Your task to perform on an android device: turn off location history Image 0: 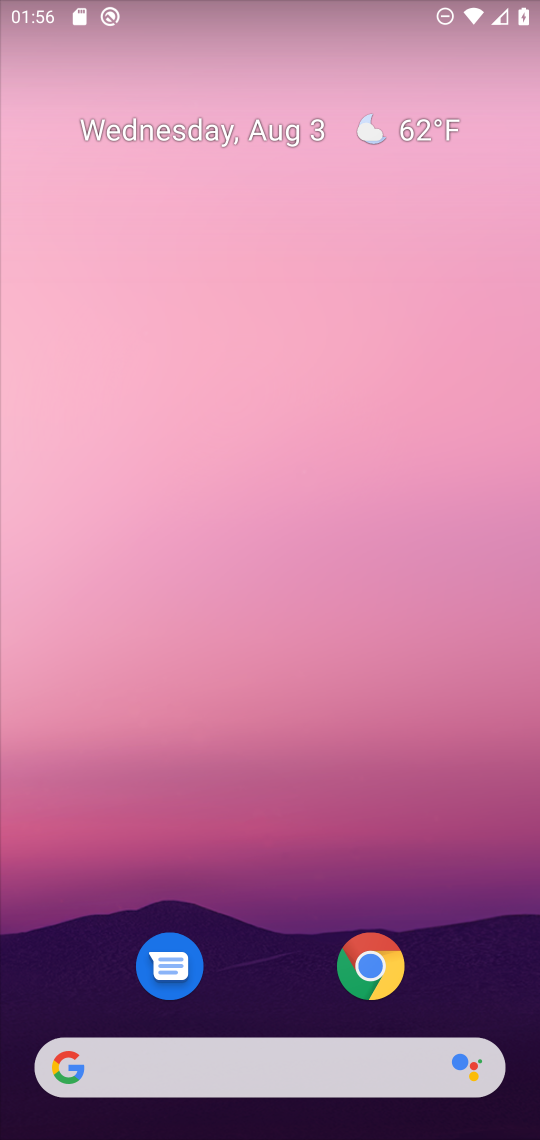
Step 0: drag from (256, 944) to (234, 431)
Your task to perform on an android device: turn off location history Image 1: 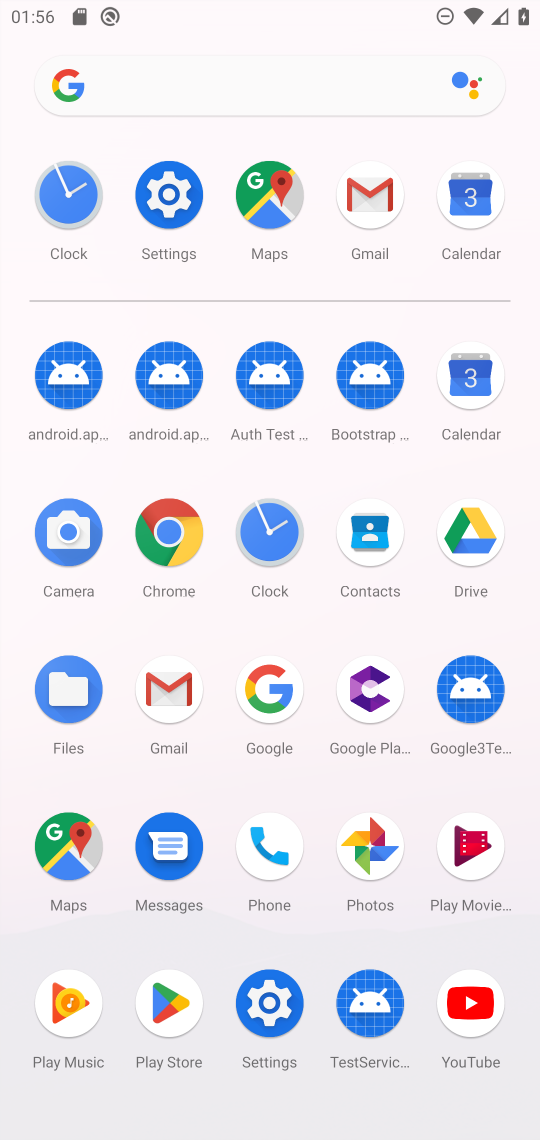
Step 1: click (175, 232)
Your task to perform on an android device: turn off location history Image 2: 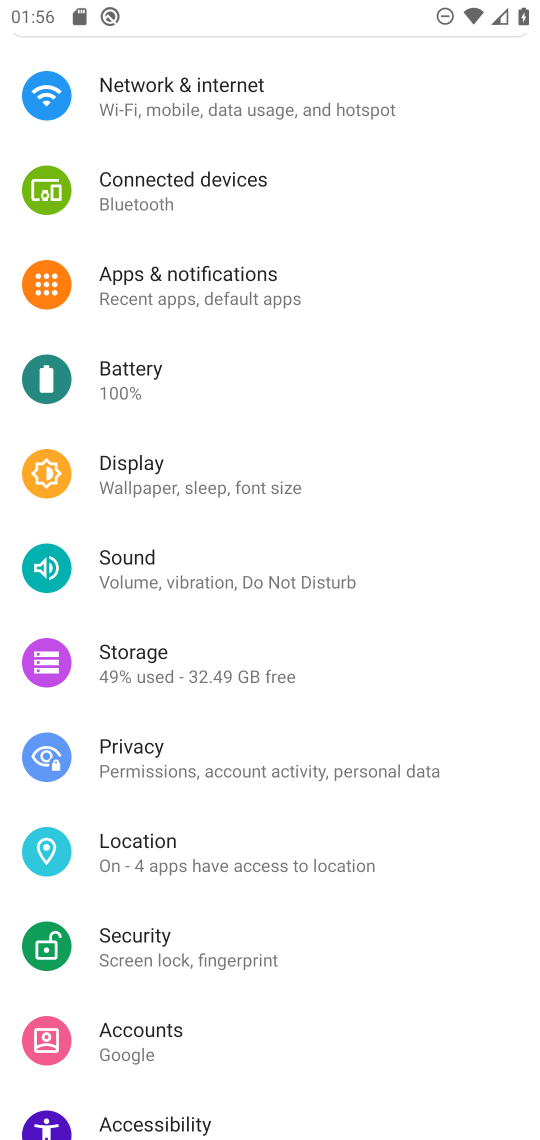
Step 2: click (164, 874)
Your task to perform on an android device: turn off location history Image 3: 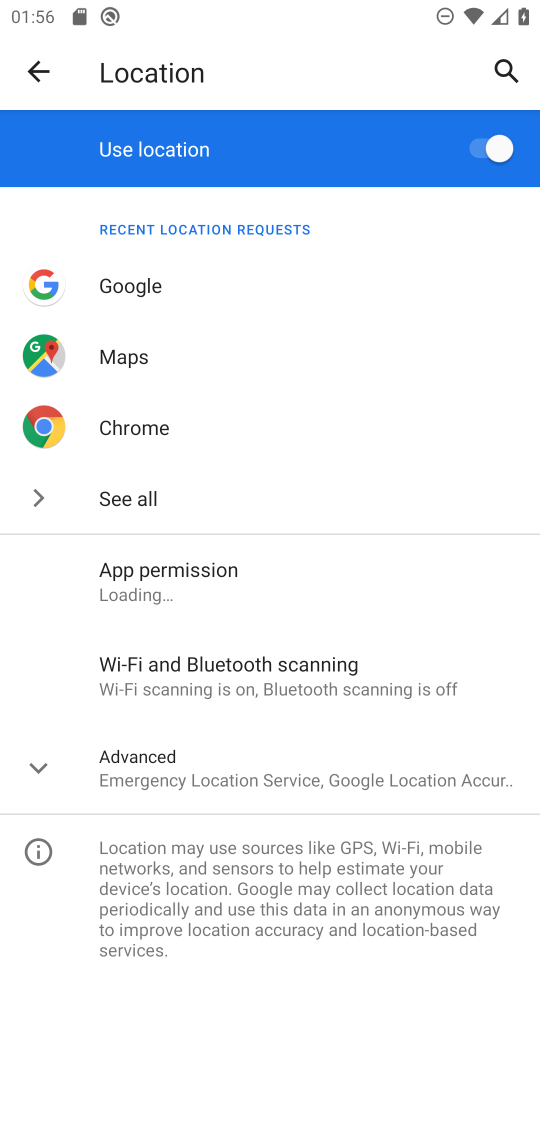
Step 3: click (202, 797)
Your task to perform on an android device: turn off location history Image 4: 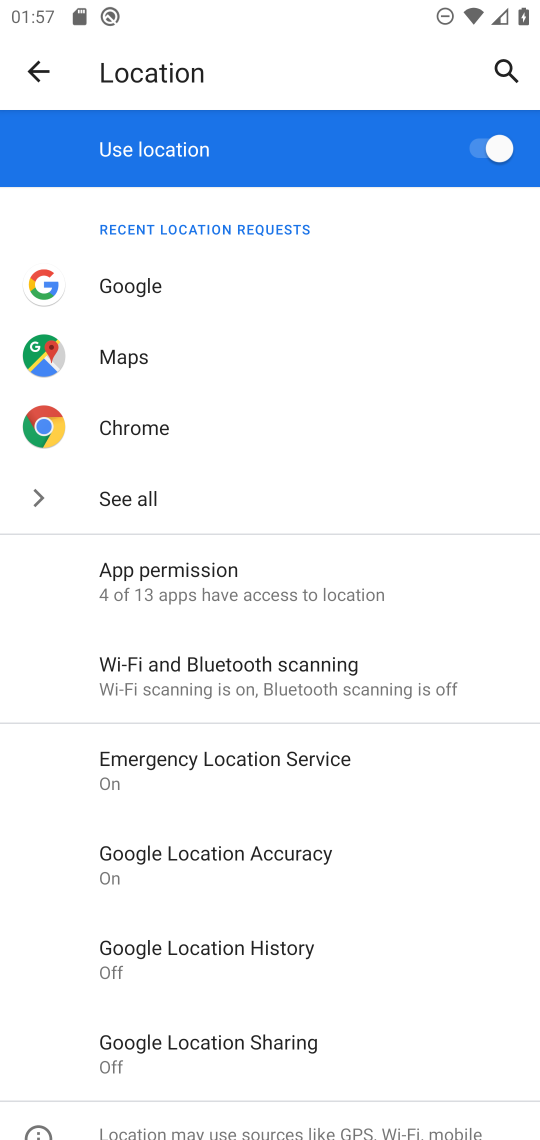
Step 4: click (318, 966)
Your task to perform on an android device: turn off location history Image 5: 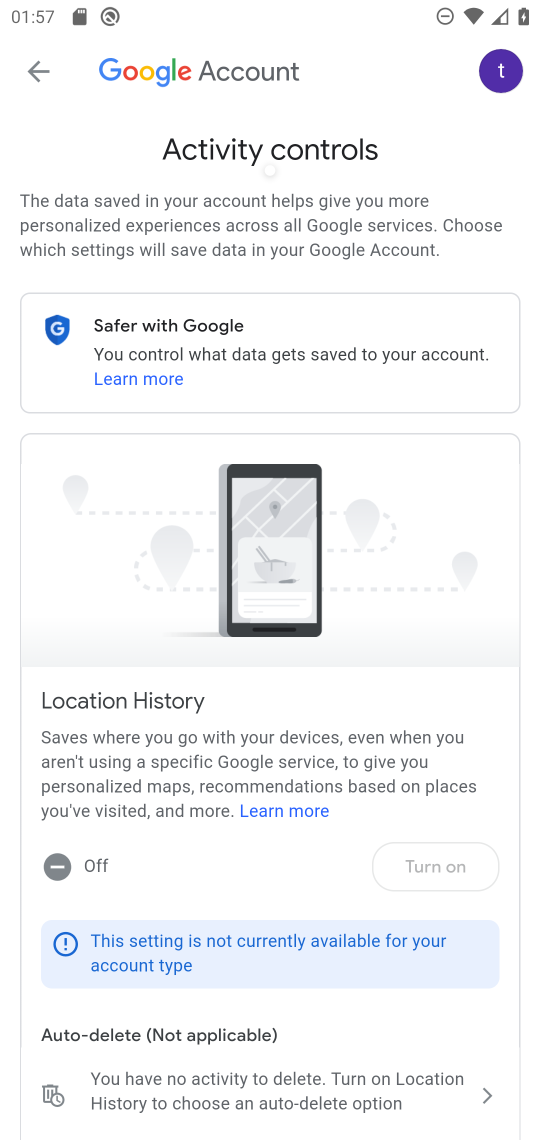
Step 5: task complete